Your task to perform on an android device: Open the Play Movies app and select the watchlist tab. Image 0: 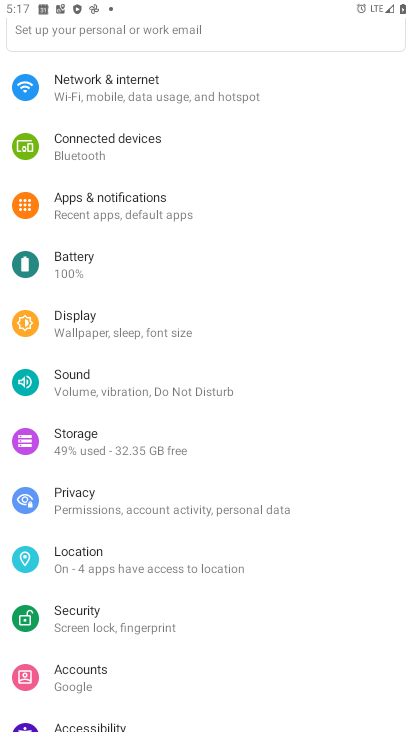
Step 0: press home button
Your task to perform on an android device: Open the Play Movies app and select the watchlist tab. Image 1: 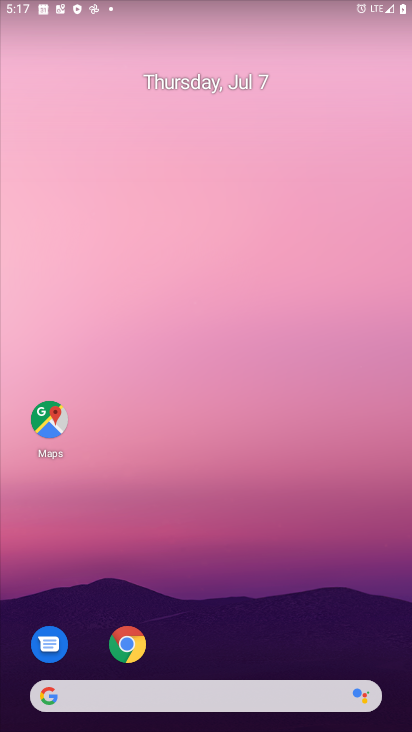
Step 1: drag from (241, 638) to (202, 109)
Your task to perform on an android device: Open the Play Movies app and select the watchlist tab. Image 2: 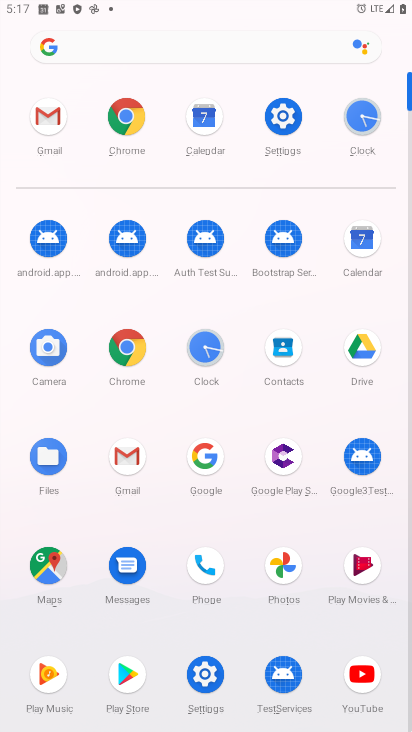
Step 2: click (360, 563)
Your task to perform on an android device: Open the Play Movies app and select the watchlist tab. Image 3: 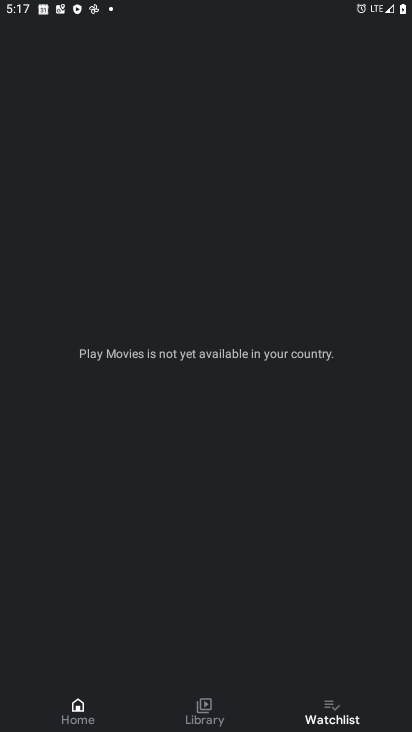
Step 3: click (328, 708)
Your task to perform on an android device: Open the Play Movies app and select the watchlist tab. Image 4: 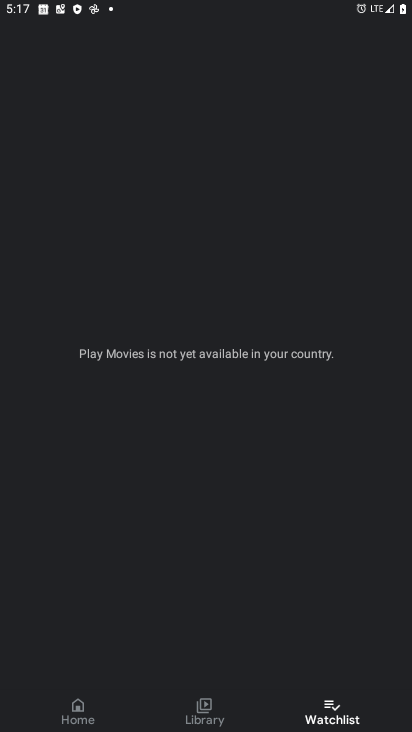
Step 4: task complete